Your task to perform on an android device: open app "Mercado Libre" (install if not already installed) Image 0: 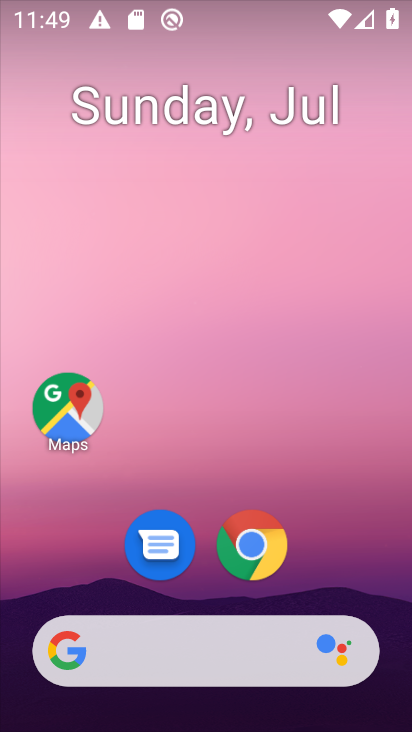
Step 0: drag from (225, 482) to (271, 13)
Your task to perform on an android device: open app "Mercado Libre" (install if not already installed) Image 1: 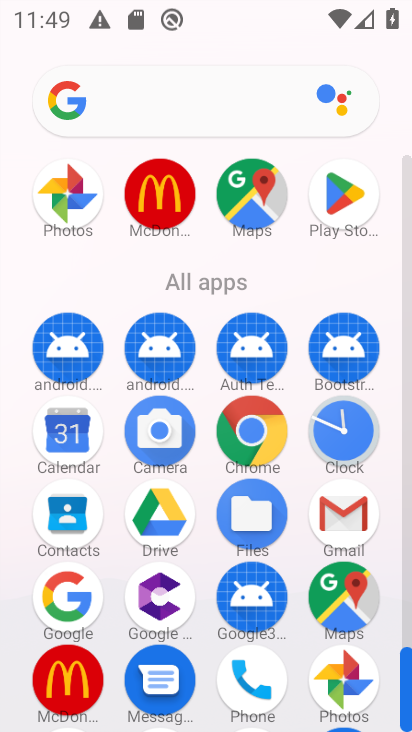
Step 1: click (348, 204)
Your task to perform on an android device: open app "Mercado Libre" (install if not already installed) Image 2: 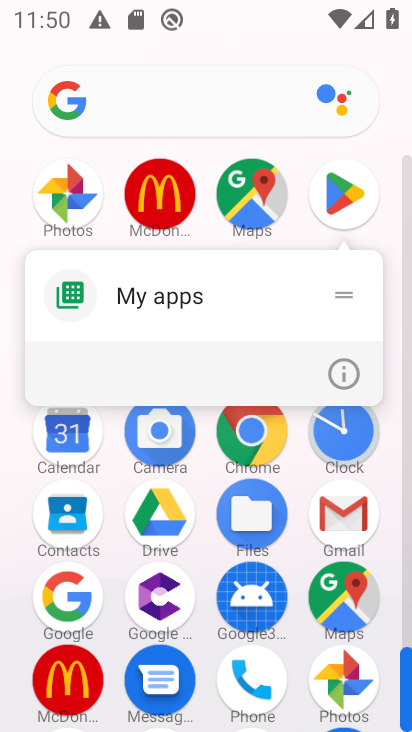
Step 2: click (329, 194)
Your task to perform on an android device: open app "Mercado Libre" (install if not already installed) Image 3: 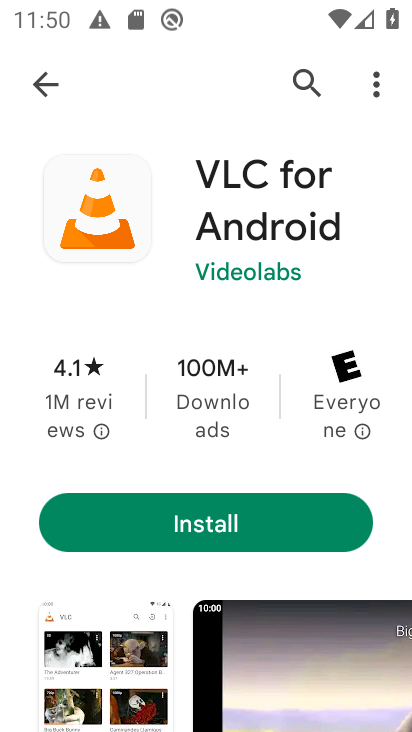
Step 3: click (330, 198)
Your task to perform on an android device: open app "Mercado Libre" (install if not already installed) Image 4: 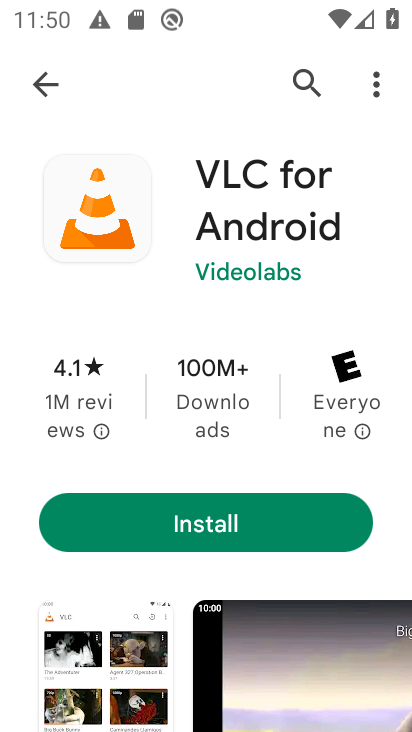
Step 4: click (300, 85)
Your task to perform on an android device: open app "Mercado Libre" (install if not already installed) Image 5: 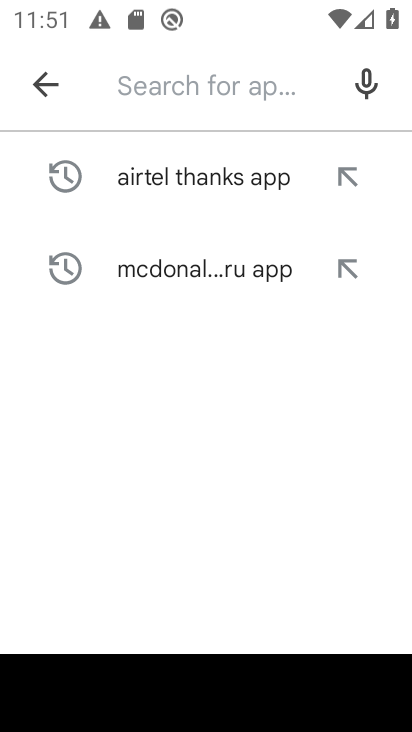
Step 5: click (196, 96)
Your task to perform on an android device: open app "Mercado Libre" (install if not already installed) Image 6: 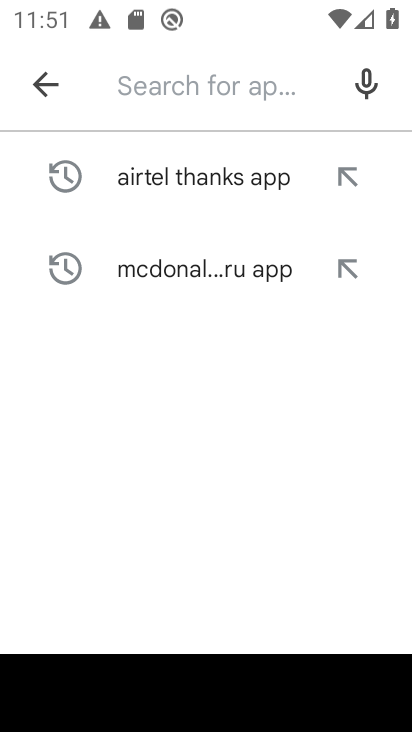
Step 6: type "Mercado Libre"
Your task to perform on an android device: open app "Mercado Libre" (install if not already installed) Image 7: 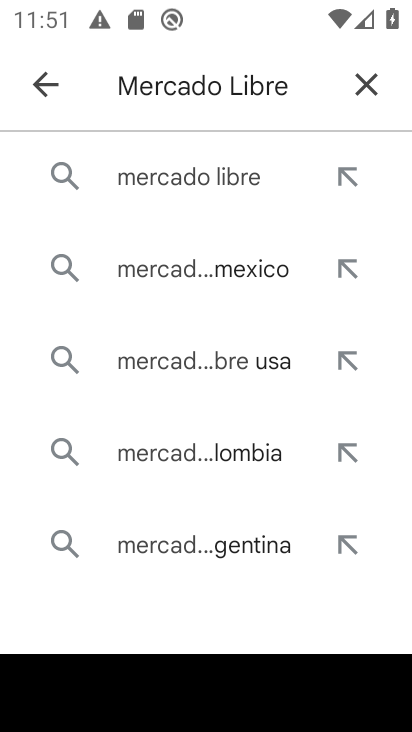
Step 7: click (156, 179)
Your task to perform on an android device: open app "Mercado Libre" (install if not already installed) Image 8: 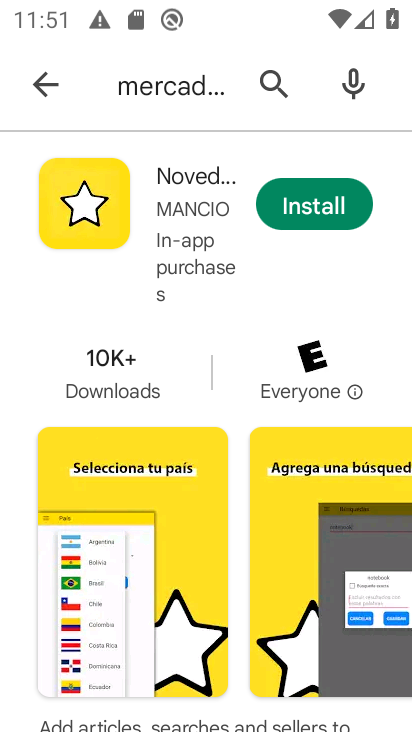
Step 8: click (307, 216)
Your task to perform on an android device: open app "Mercado Libre" (install if not already installed) Image 9: 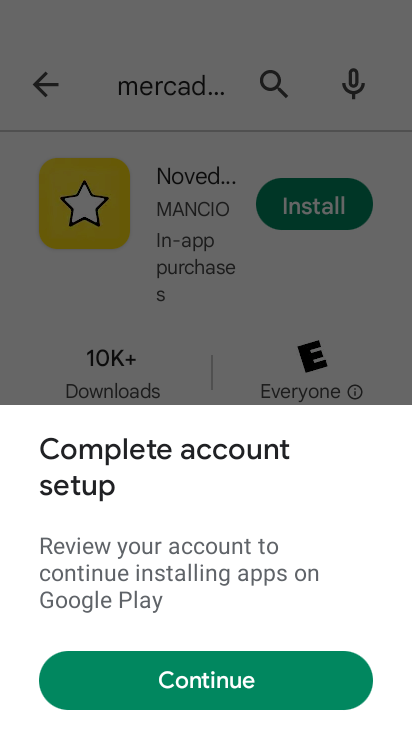
Step 9: click (219, 692)
Your task to perform on an android device: open app "Mercado Libre" (install if not already installed) Image 10: 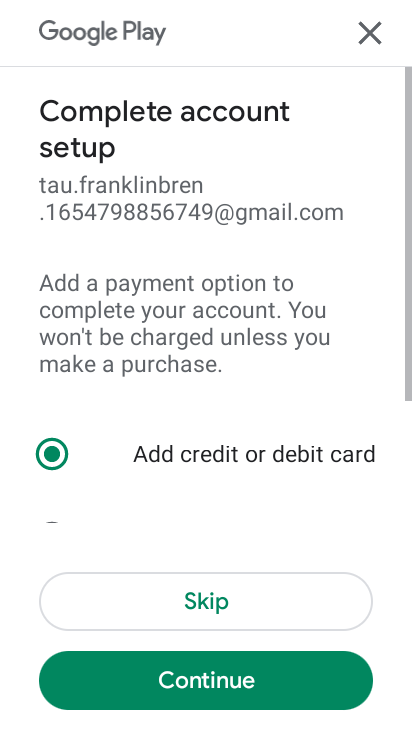
Step 10: click (185, 610)
Your task to perform on an android device: open app "Mercado Libre" (install if not already installed) Image 11: 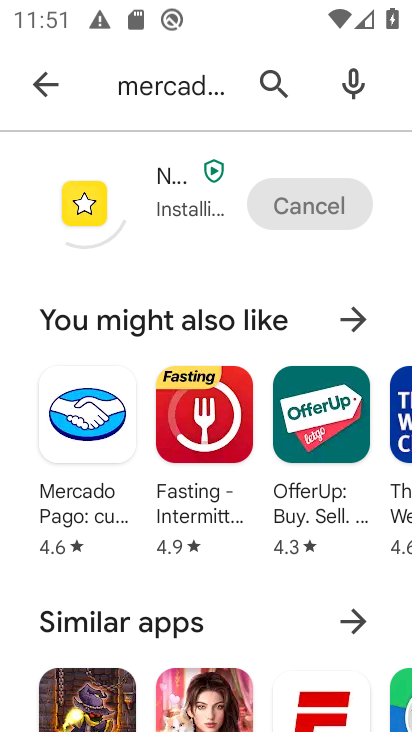
Step 11: task complete